Your task to perform on an android device: turn on priority inbox in the gmail app Image 0: 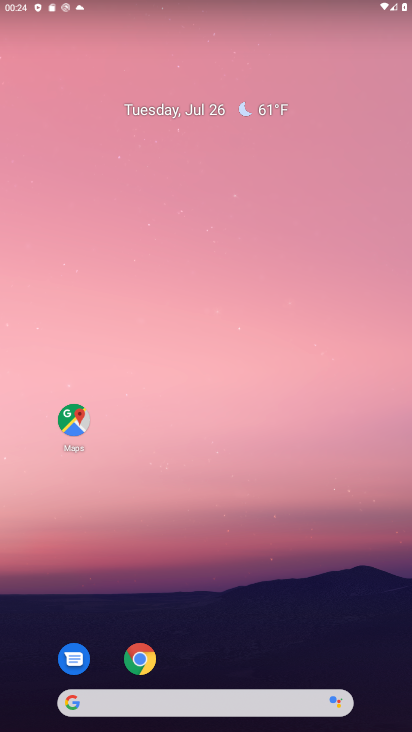
Step 0: drag from (268, 625) to (230, 105)
Your task to perform on an android device: turn on priority inbox in the gmail app Image 1: 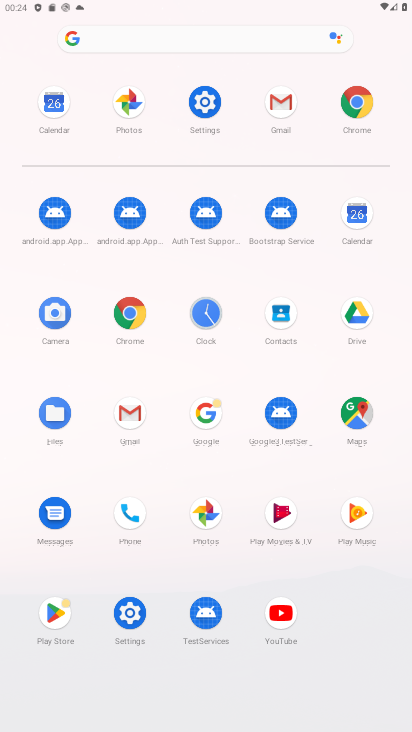
Step 1: click (276, 100)
Your task to perform on an android device: turn on priority inbox in the gmail app Image 2: 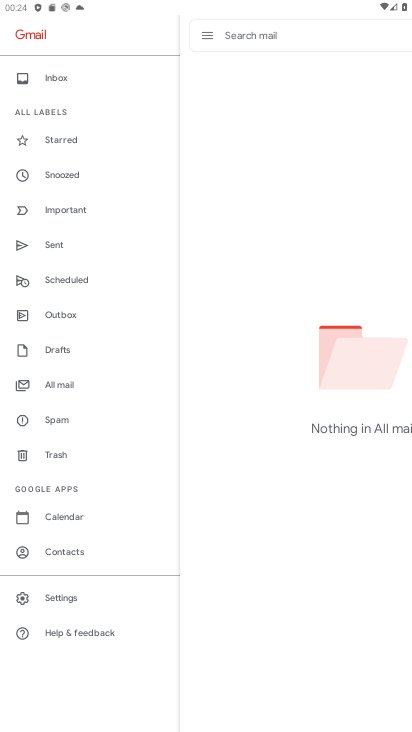
Step 2: click (85, 595)
Your task to perform on an android device: turn on priority inbox in the gmail app Image 3: 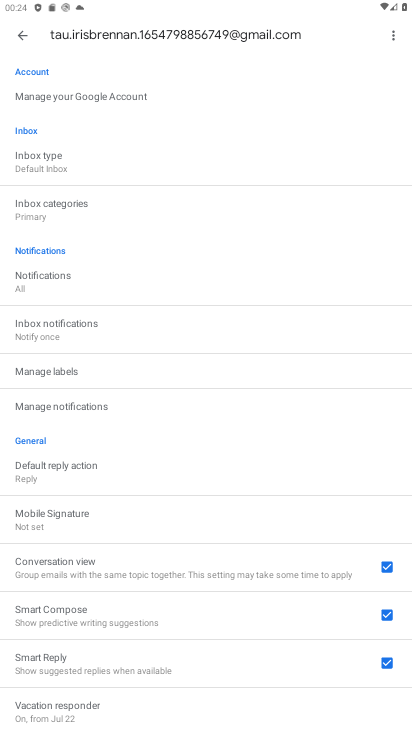
Step 3: click (65, 165)
Your task to perform on an android device: turn on priority inbox in the gmail app Image 4: 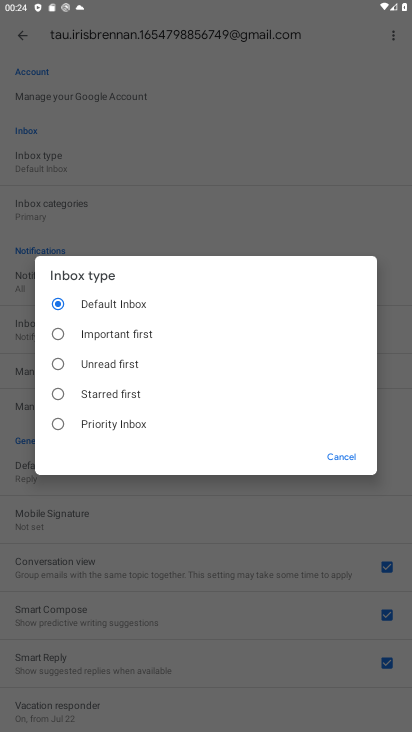
Step 4: task complete